Your task to perform on an android device: turn off location Image 0: 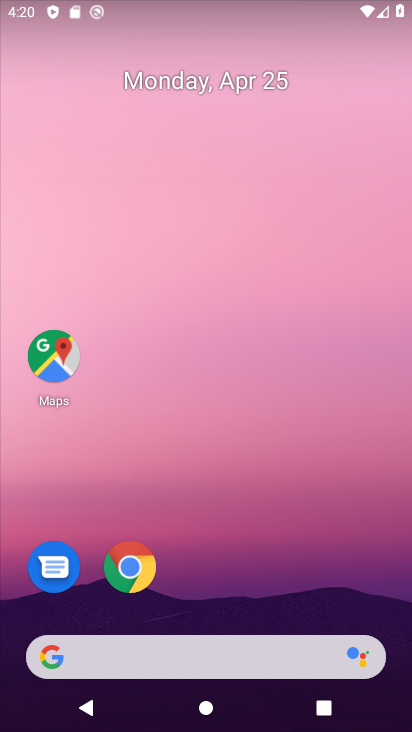
Step 0: drag from (261, 573) to (311, 129)
Your task to perform on an android device: turn off location Image 1: 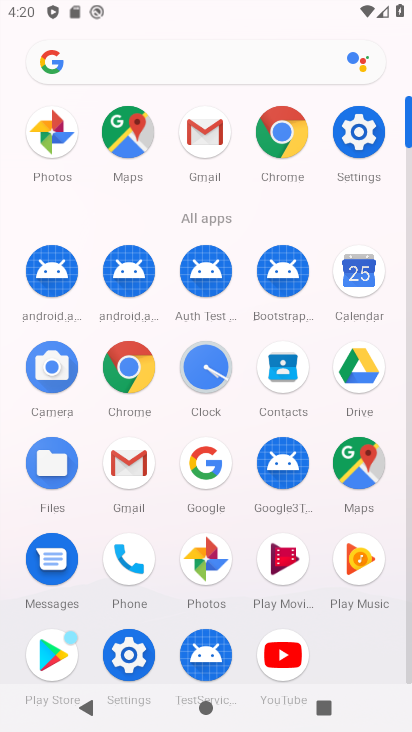
Step 1: click (357, 142)
Your task to perform on an android device: turn off location Image 2: 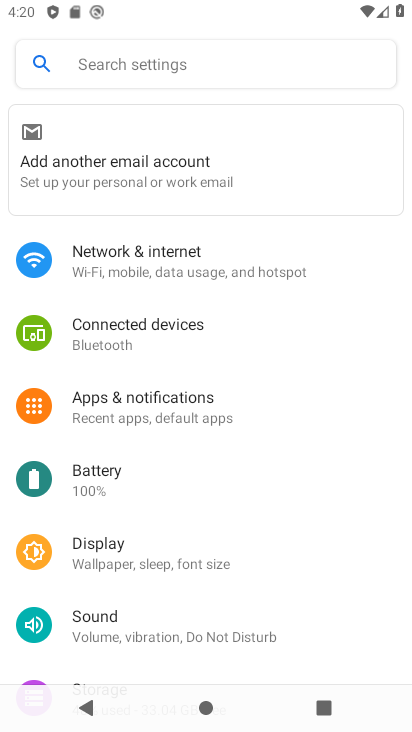
Step 2: drag from (143, 587) to (243, 257)
Your task to perform on an android device: turn off location Image 3: 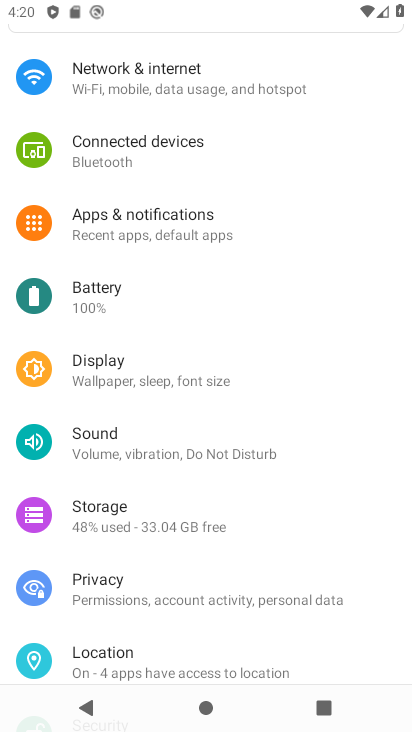
Step 3: click (143, 664)
Your task to perform on an android device: turn off location Image 4: 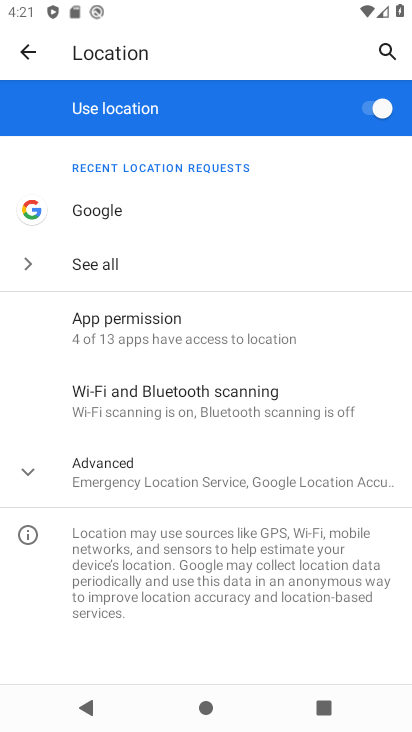
Step 4: click (381, 111)
Your task to perform on an android device: turn off location Image 5: 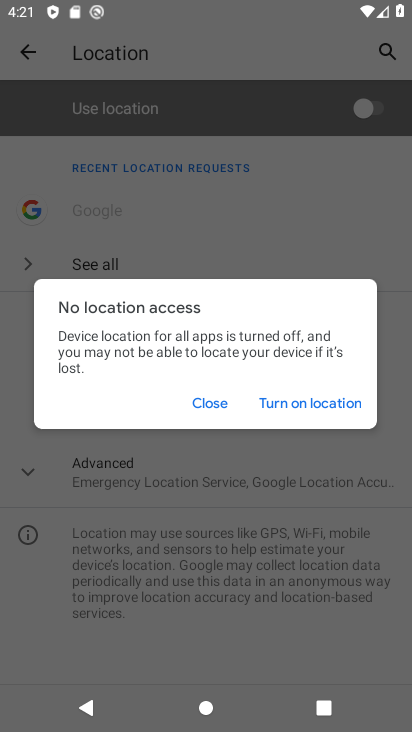
Step 5: click (232, 547)
Your task to perform on an android device: turn off location Image 6: 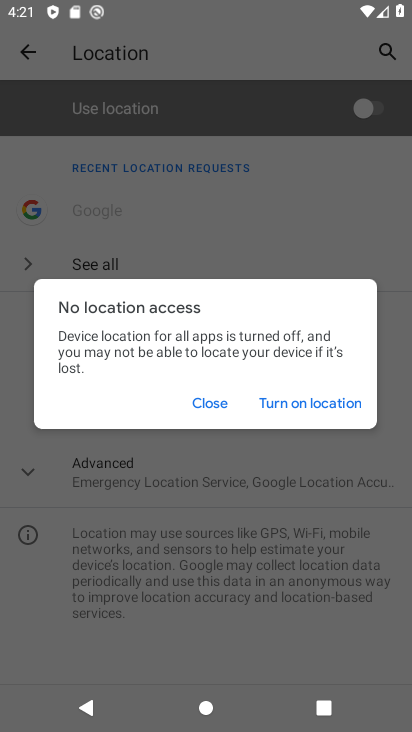
Step 6: task complete